Your task to perform on an android device: Do I have any events this weekend? Image 0: 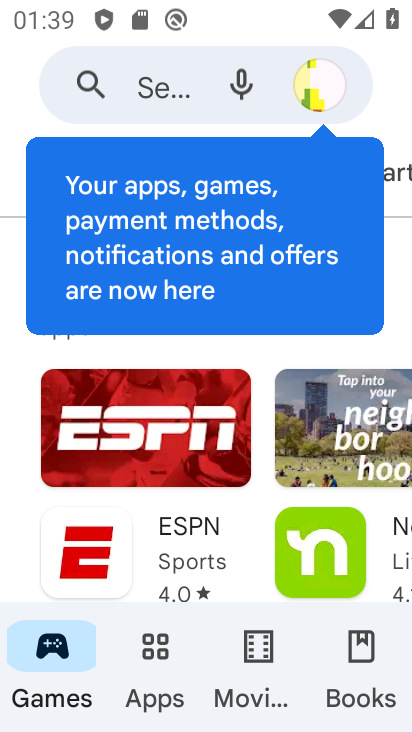
Step 0: press home button
Your task to perform on an android device: Do I have any events this weekend? Image 1: 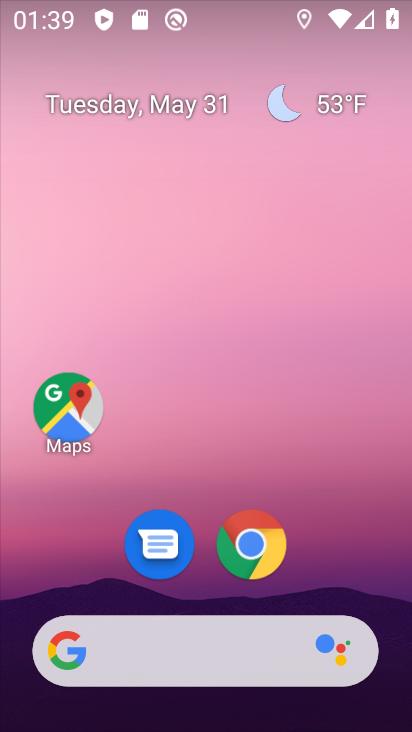
Step 1: drag from (340, 607) to (286, 44)
Your task to perform on an android device: Do I have any events this weekend? Image 2: 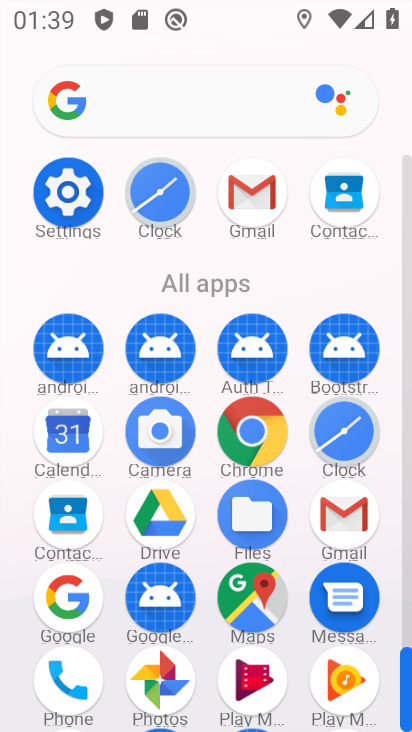
Step 2: click (61, 432)
Your task to perform on an android device: Do I have any events this weekend? Image 3: 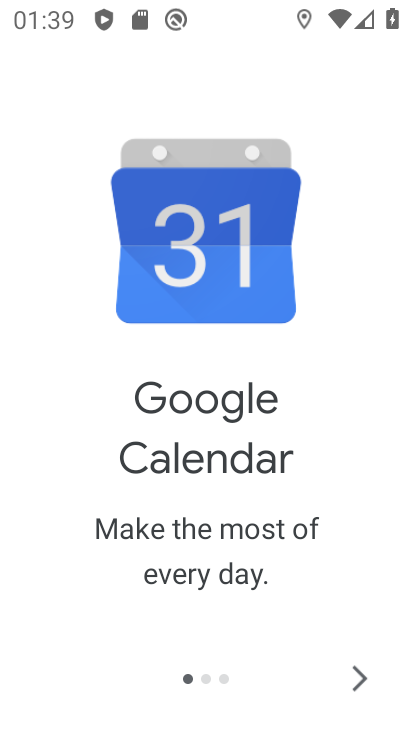
Step 3: click (360, 673)
Your task to perform on an android device: Do I have any events this weekend? Image 4: 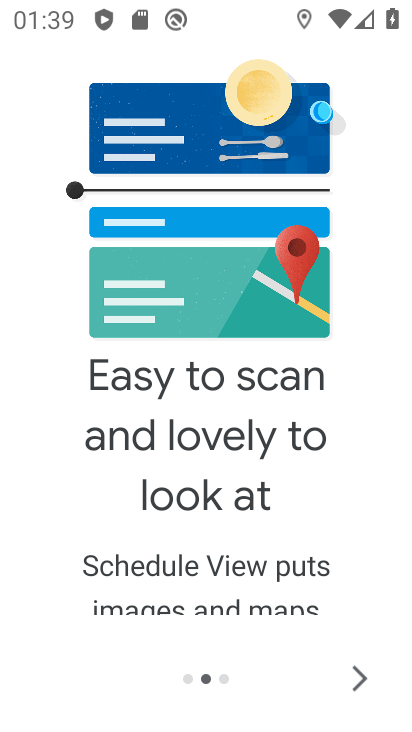
Step 4: click (359, 673)
Your task to perform on an android device: Do I have any events this weekend? Image 5: 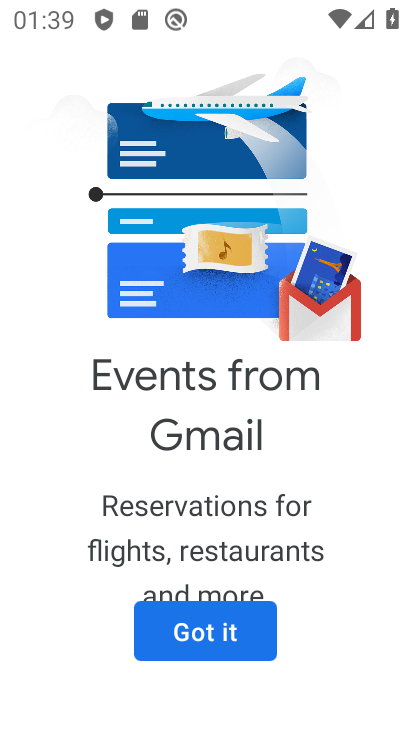
Step 5: click (234, 633)
Your task to perform on an android device: Do I have any events this weekend? Image 6: 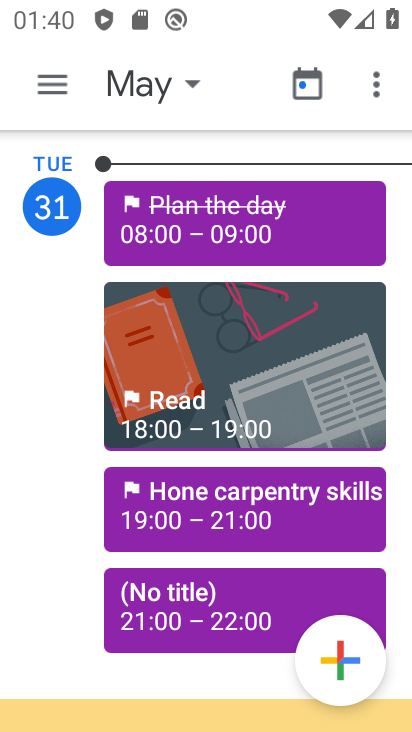
Step 6: click (42, 69)
Your task to perform on an android device: Do I have any events this weekend? Image 7: 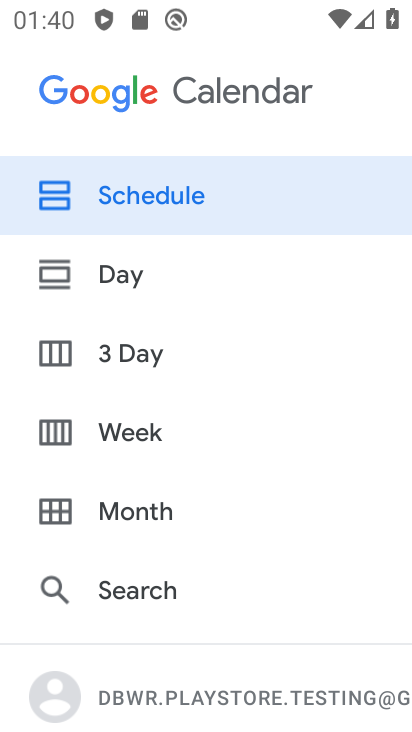
Step 7: click (124, 365)
Your task to perform on an android device: Do I have any events this weekend? Image 8: 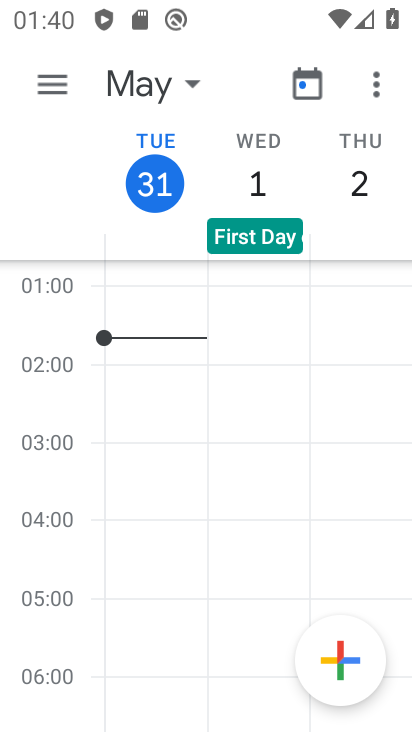
Step 8: click (157, 83)
Your task to perform on an android device: Do I have any events this weekend? Image 9: 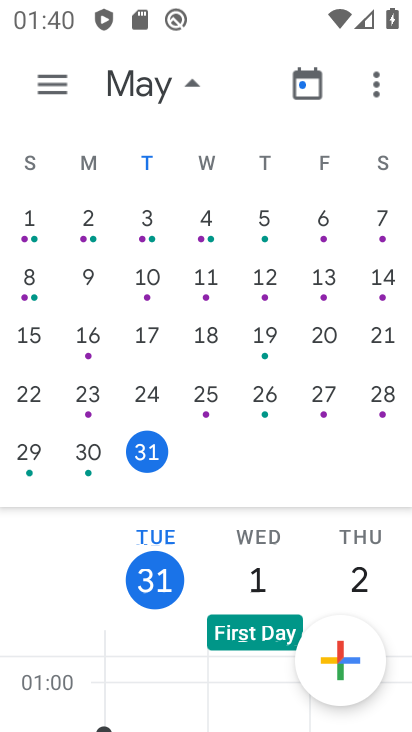
Step 9: drag from (332, 321) to (59, 287)
Your task to perform on an android device: Do I have any events this weekend? Image 10: 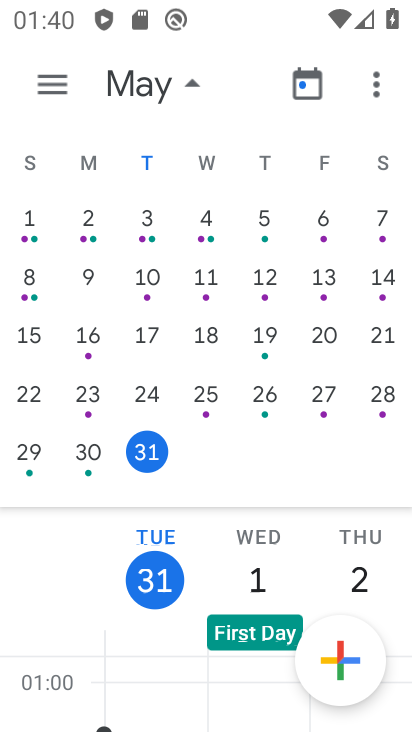
Step 10: drag from (369, 326) to (26, 252)
Your task to perform on an android device: Do I have any events this weekend? Image 11: 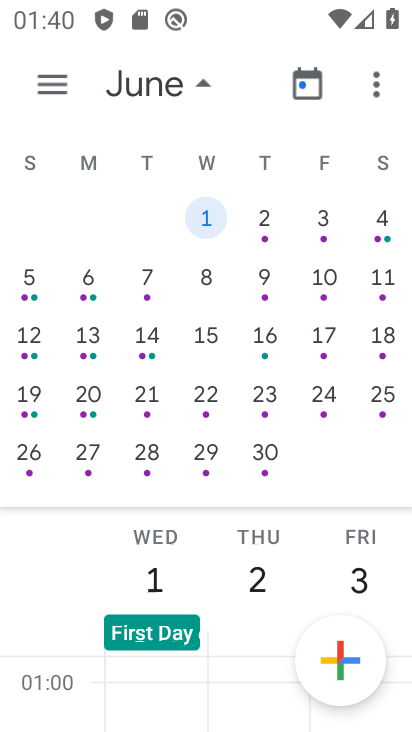
Step 11: click (208, 210)
Your task to perform on an android device: Do I have any events this weekend? Image 12: 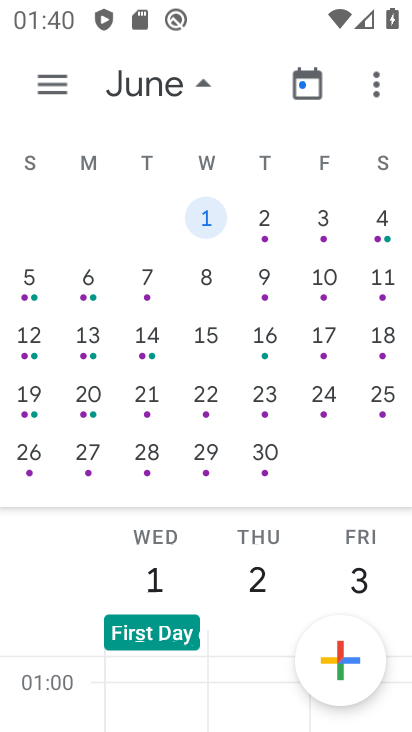
Step 12: click (336, 215)
Your task to perform on an android device: Do I have any events this weekend? Image 13: 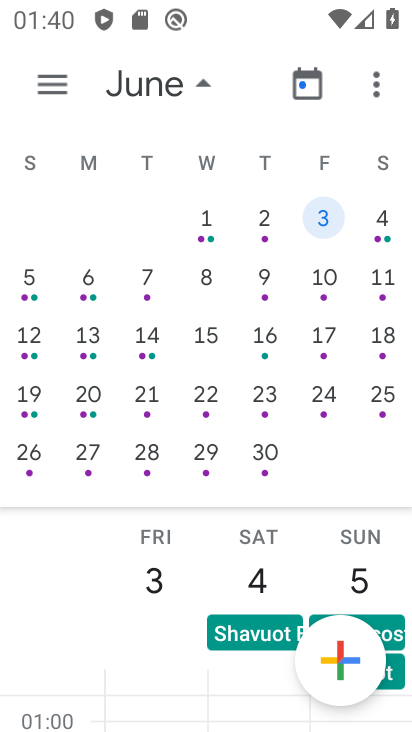
Step 13: task complete